Your task to perform on an android device: Open display settings Image 0: 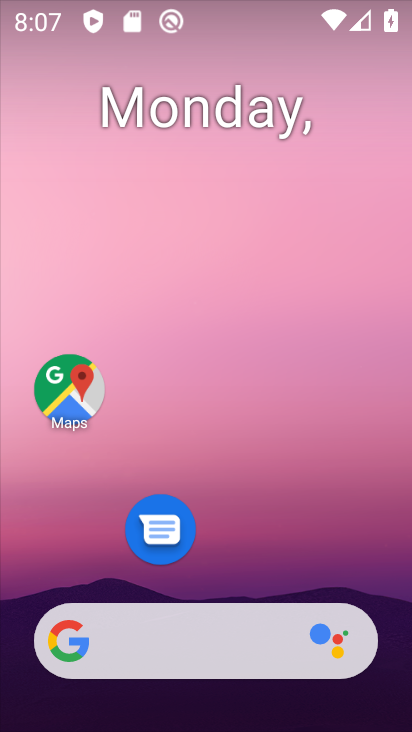
Step 0: drag from (213, 565) to (265, 112)
Your task to perform on an android device: Open display settings Image 1: 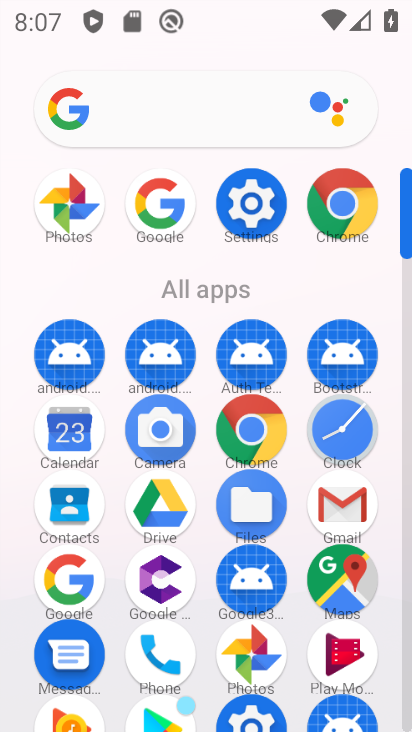
Step 1: click (265, 201)
Your task to perform on an android device: Open display settings Image 2: 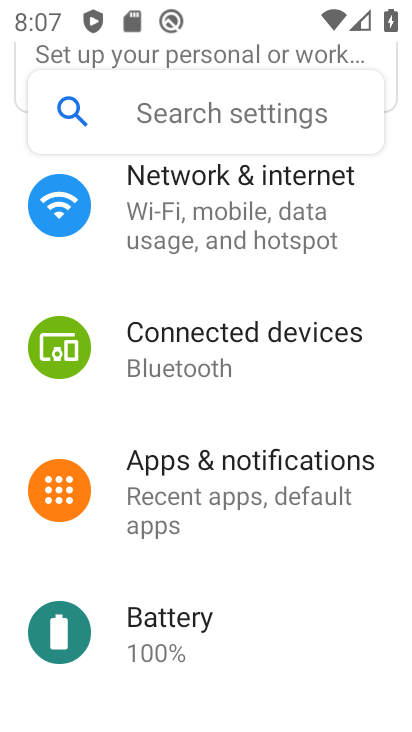
Step 2: drag from (244, 252) to (256, 204)
Your task to perform on an android device: Open display settings Image 3: 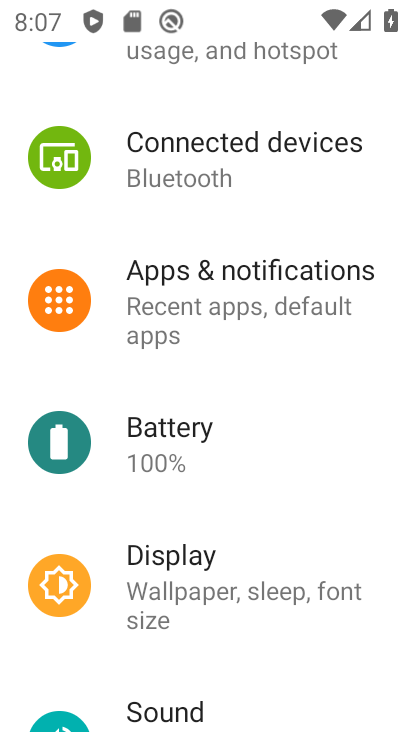
Step 3: click (196, 587)
Your task to perform on an android device: Open display settings Image 4: 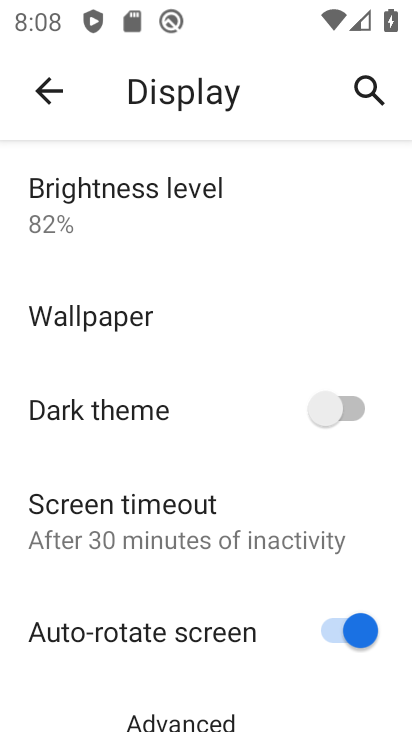
Step 4: task complete